Your task to perform on an android device: set the stopwatch Image 0: 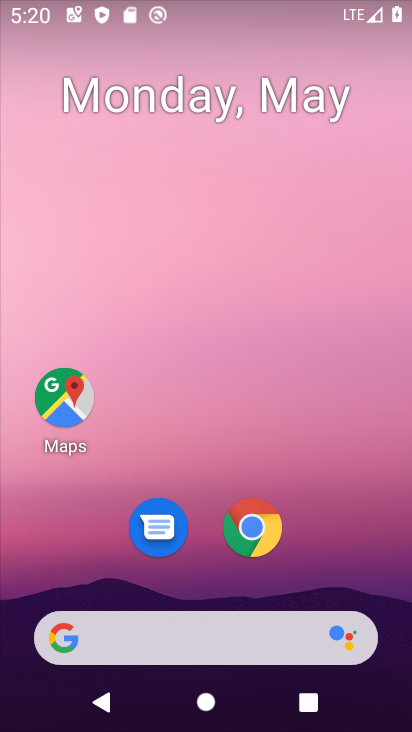
Step 0: drag from (393, 697) to (358, 236)
Your task to perform on an android device: set the stopwatch Image 1: 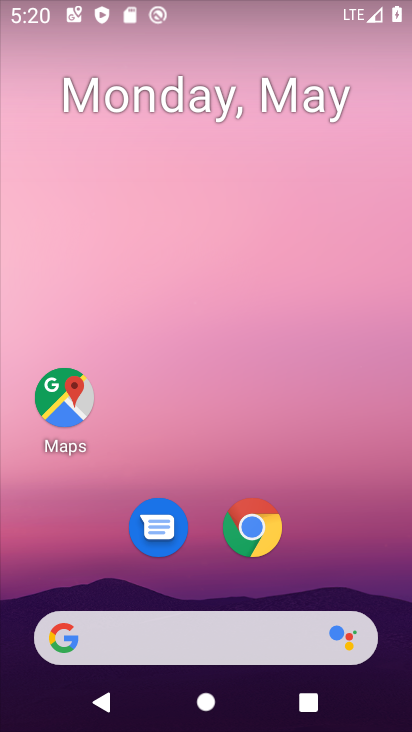
Step 1: drag from (402, 713) to (326, 241)
Your task to perform on an android device: set the stopwatch Image 2: 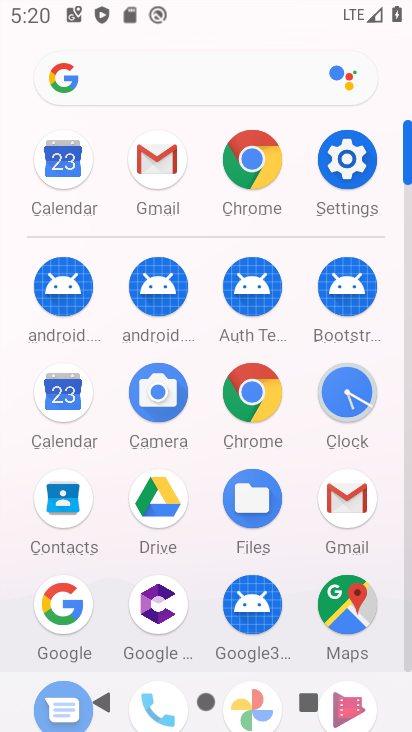
Step 2: click (336, 160)
Your task to perform on an android device: set the stopwatch Image 3: 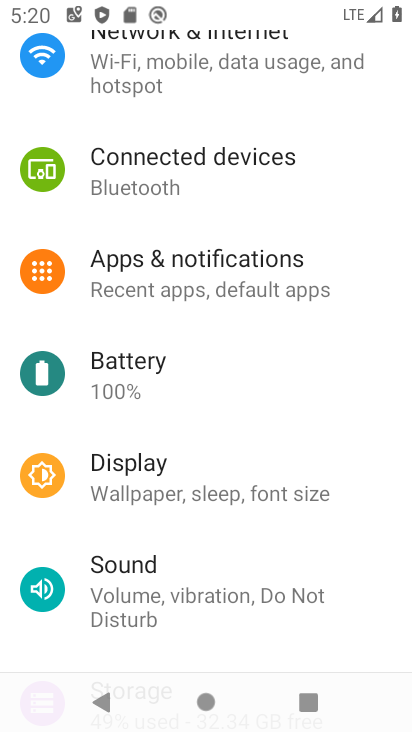
Step 3: press home button
Your task to perform on an android device: set the stopwatch Image 4: 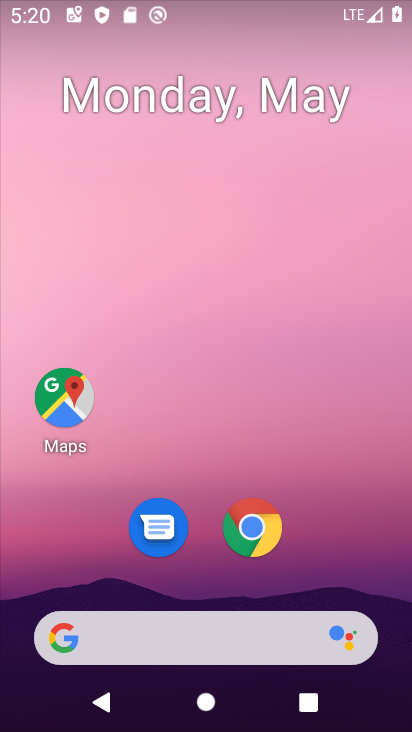
Step 4: drag from (390, 706) to (317, 129)
Your task to perform on an android device: set the stopwatch Image 5: 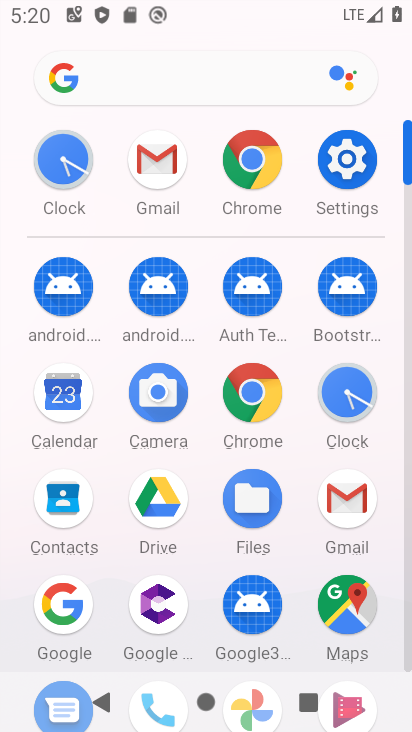
Step 5: click (357, 409)
Your task to perform on an android device: set the stopwatch Image 6: 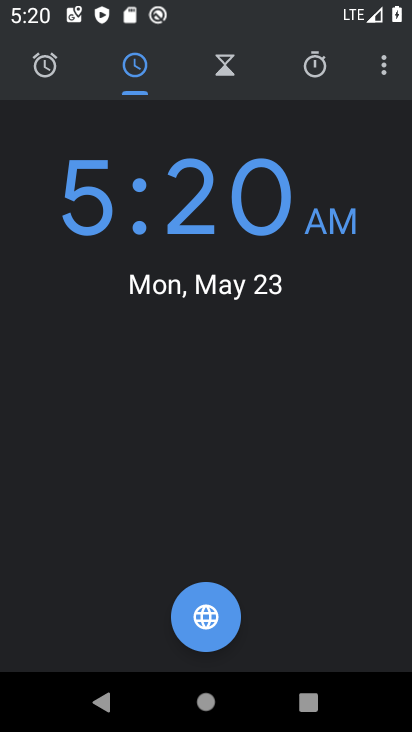
Step 6: click (318, 69)
Your task to perform on an android device: set the stopwatch Image 7: 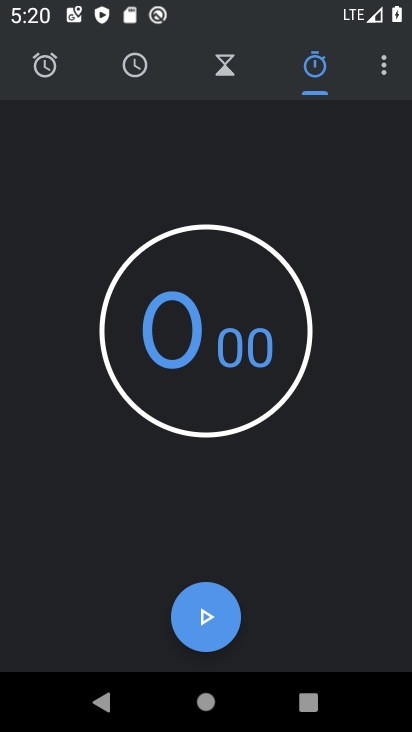
Step 7: click (189, 604)
Your task to perform on an android device: set the stopwatch Image 8: 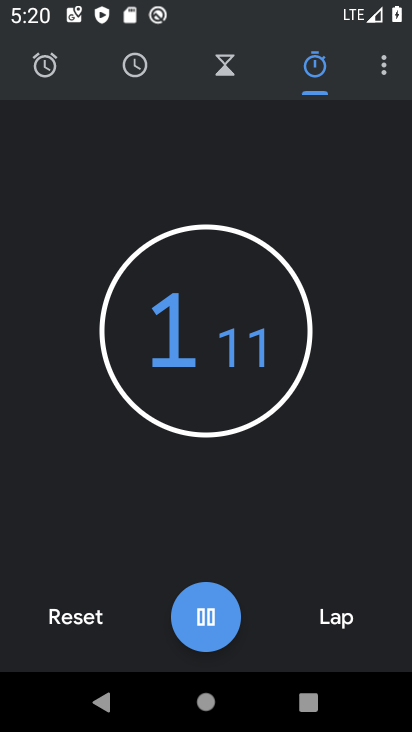
Step 8: task complete